Your task to perform on an android device: What's on my calendar today? Image 0: 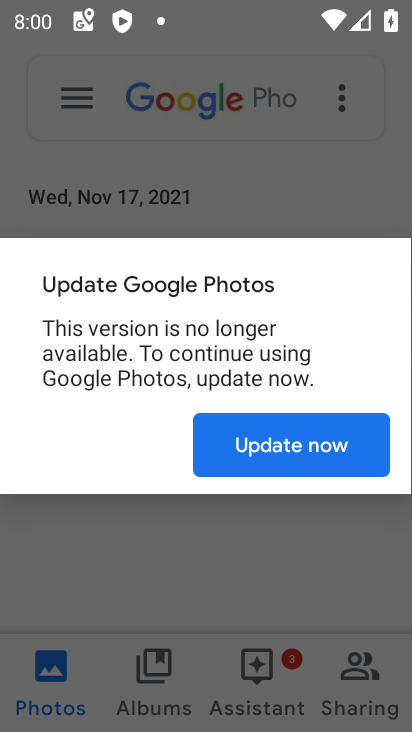
Step 0: press home button
Your task to perform on an android device: What's on my calendar today? Image 1: 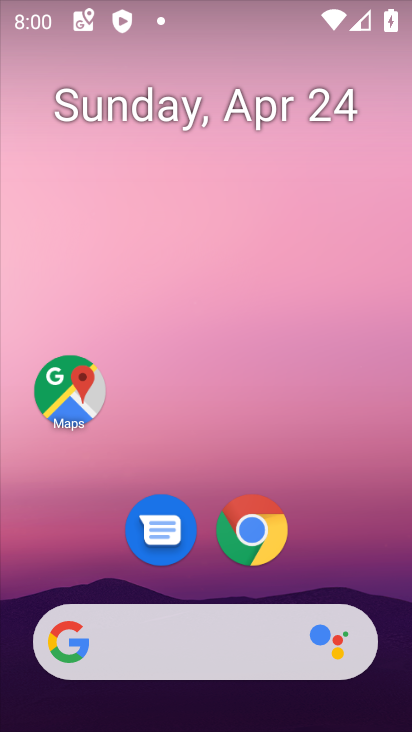
Step 1: click (273, 113)
Your task to perform on an android device: What's on my calendar today? Image 2: 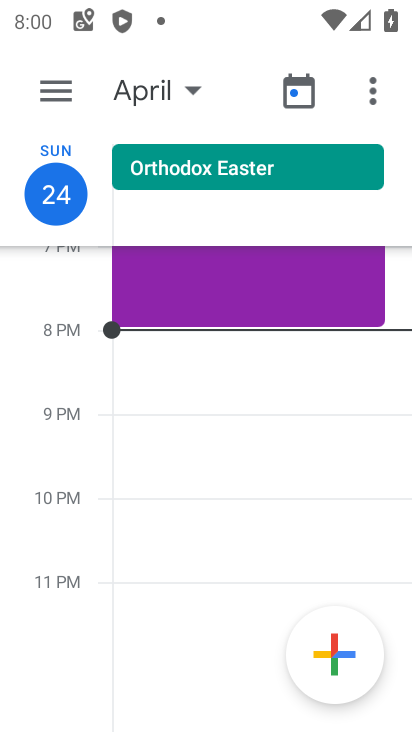
Step 2: click (273, 113)
Your task to perform on an android device: What's on my calendar today? Image 3: 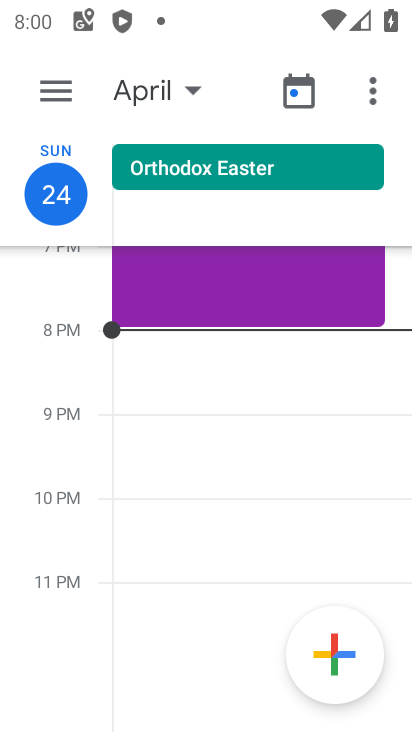
Step 3: task complete